Your task to perform on an android device: Clear the cart on ebay.com. Search for "apple airpods pro" on ebay.com, select the first entry, add it to the cart, then select checkout. Image 0: 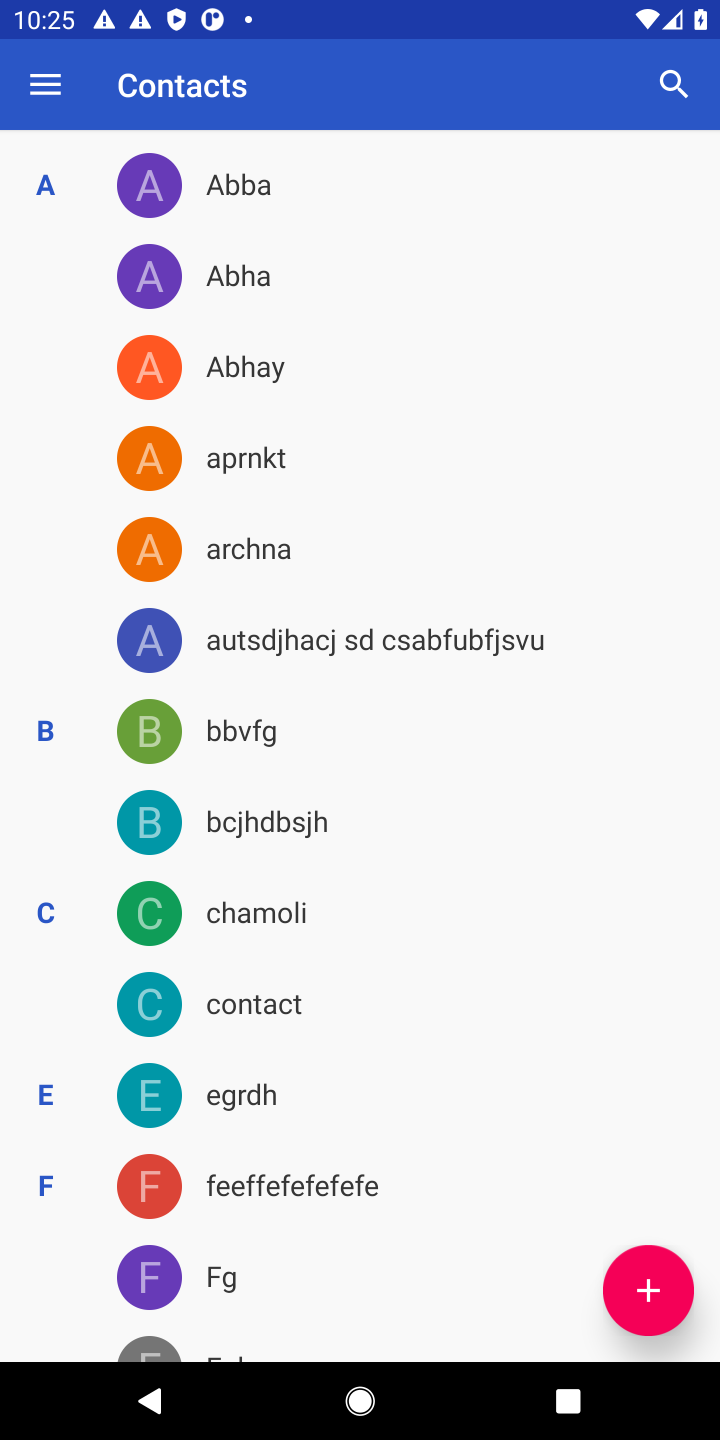
Step 0: press home button
Your task to perform on an android device: Clear the cart on ebay.com. Search for "apple airpods pro" on ebay.com, select the first entry, add it to the cart, then select checkout. Image 1: 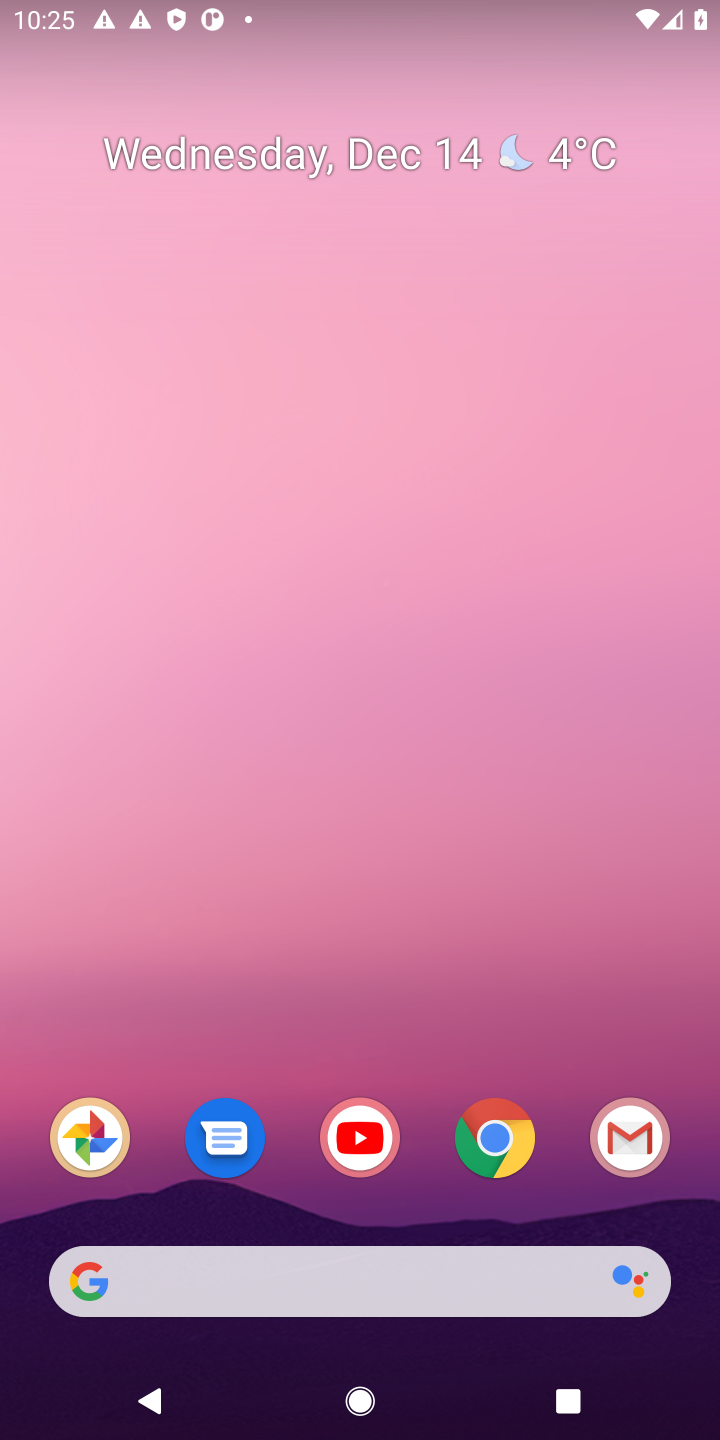
Step 1: click (506, 1152)
Your task to perform on an android device: Clear the cart on ebay.com. Search for "apple airpods pro" on ebay.com, select the first entry, add it to the cart, then select checkout. Image 2: 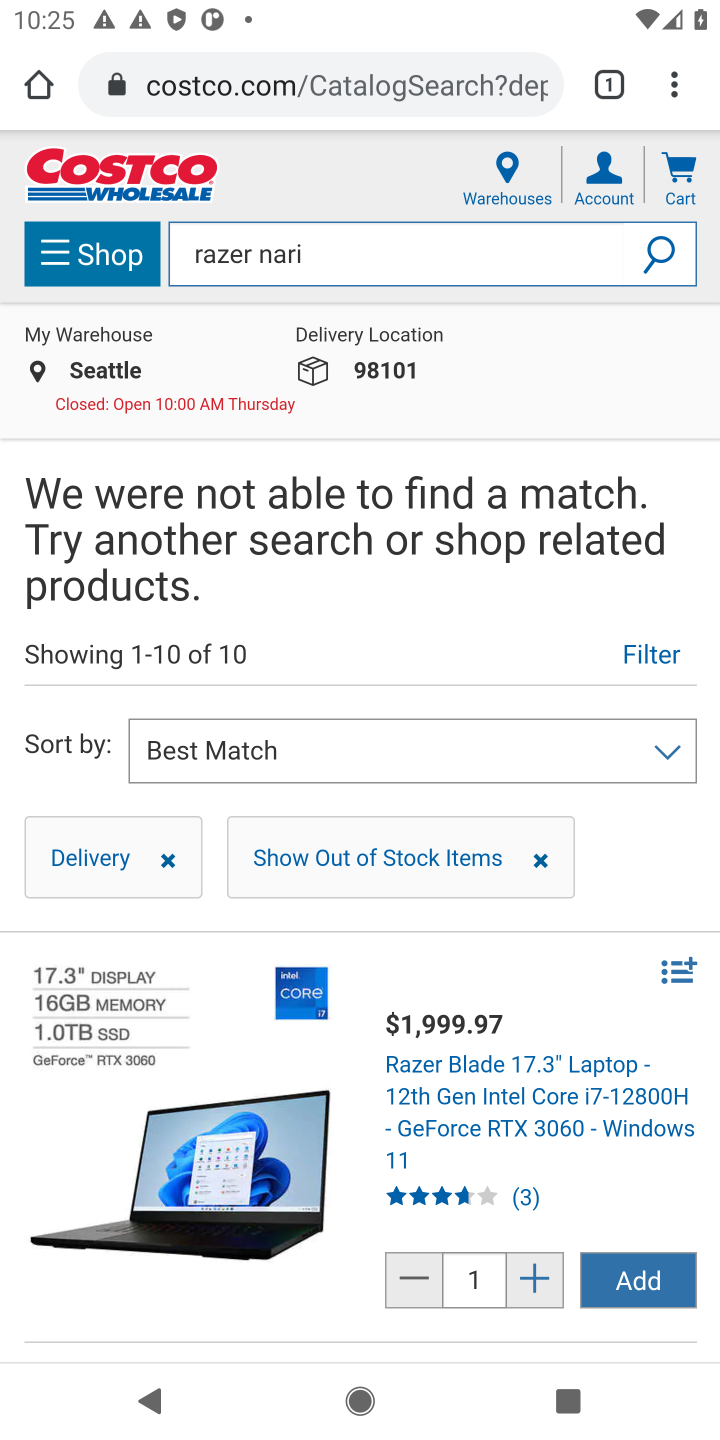
Step 2: click (303, 82)
Your task to perform on an android device: Clear the cart on ebay.com. Search for "apple airpods pro" on ebay.com, select the first entry, add it to the cart, then select checkout. Image 3: 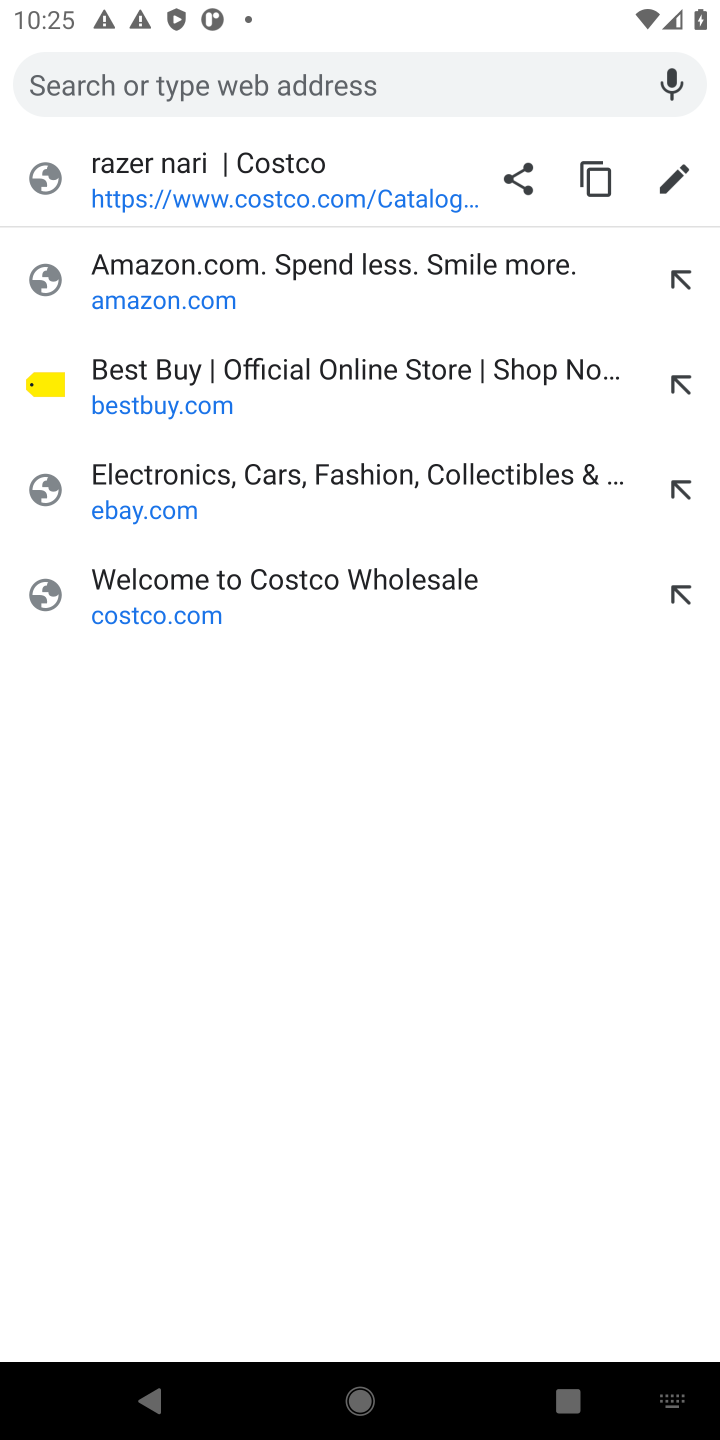
Step 3: click (157, 497)
Your task to perform on an android device: Clear the cart on ebay.com. Search for "apple airpods pro" on ebay.com, select the first entry, add it to the cart, then select checkout. Image 4: 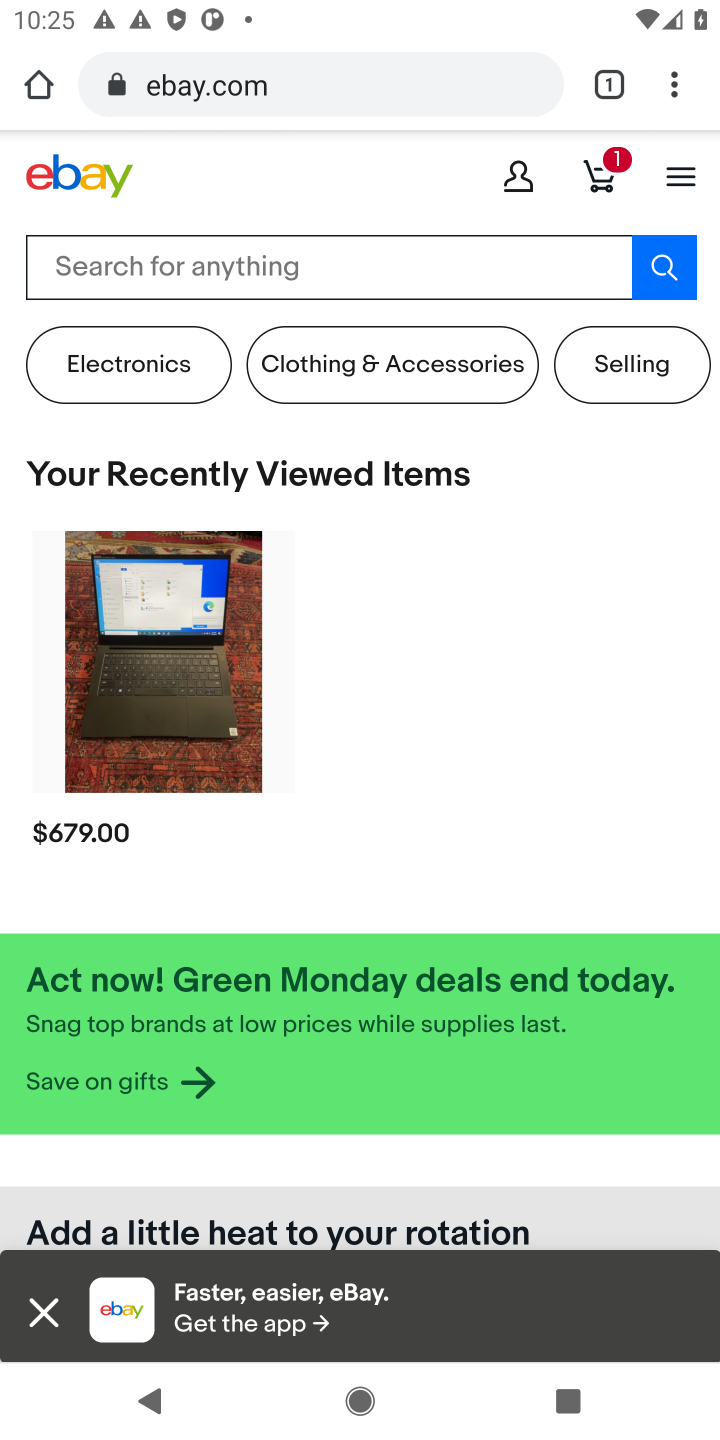
Step 4: click (603, 184)
Your task to perform on an android device: Clear the cart on ebay.com. Search for "apple airpods pro" on ebay.com, select the first entry, add it to the cart, then select checkout. Image 5: 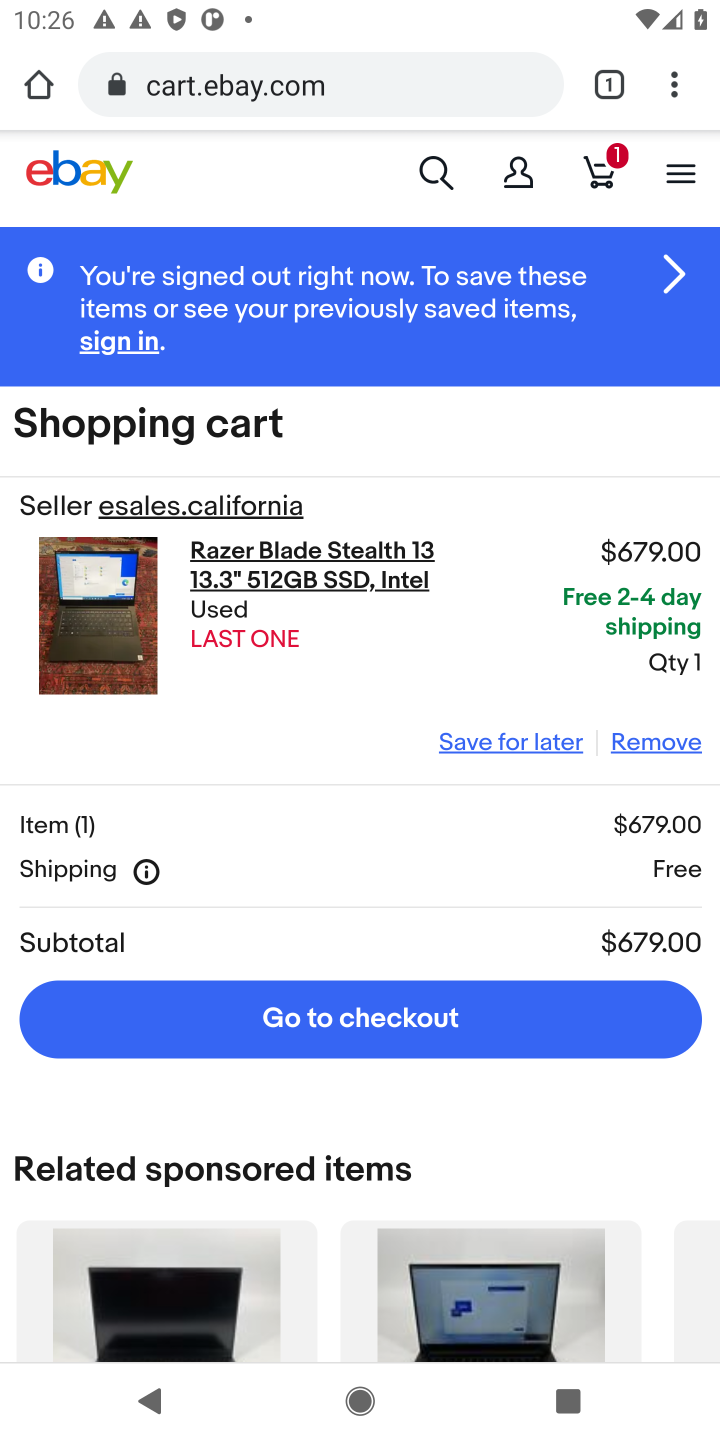
Step 5: click (649, 755)
Your task to perform on an android device: Clear the cart on ebay.com. Search for "apple airpods pro" on ebay.com, select the first entry, add it to the cart, then select checkout. Image 6: 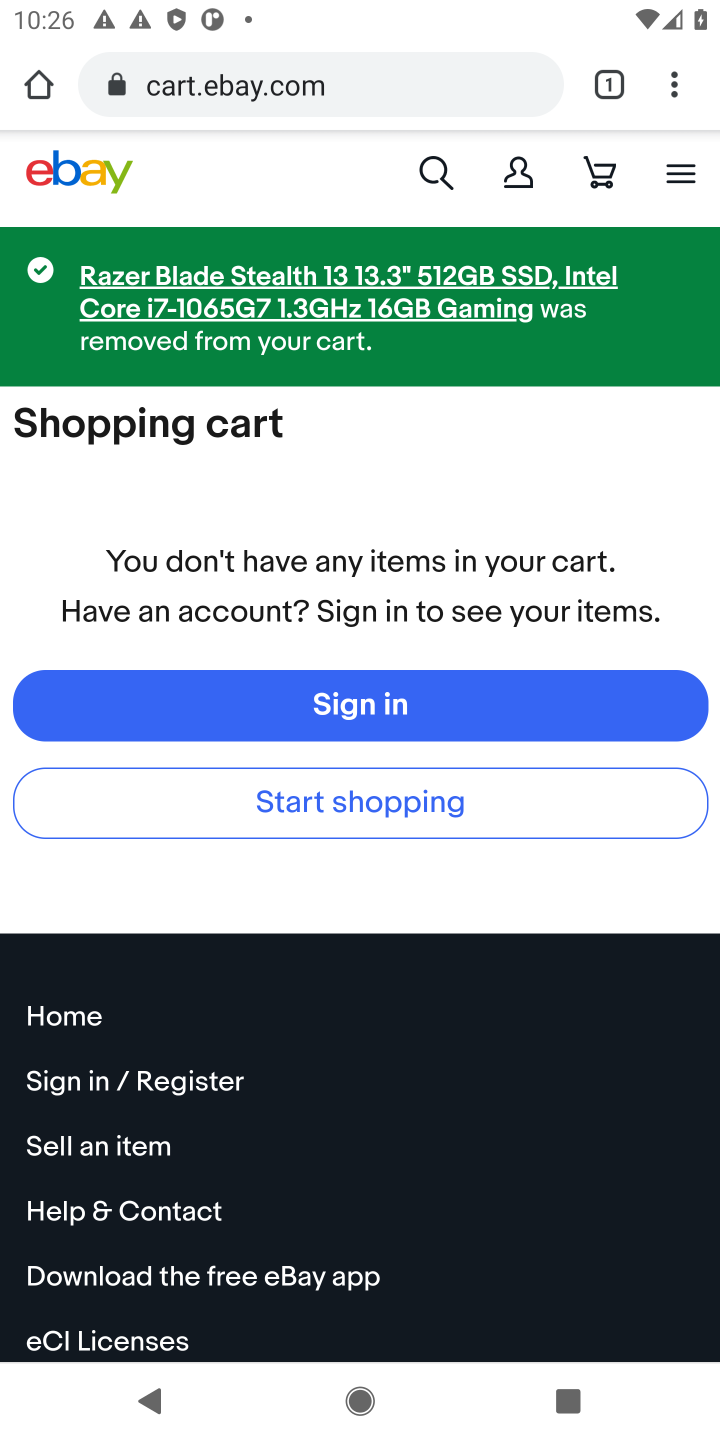
Step 6: click (423, 175)
Your task to perform on an android device: Clear the cart on ebay.com. Search for "apple airpods pro" on ebay.com, select the first entry, add it to the cart, then select checkout. Image 7: 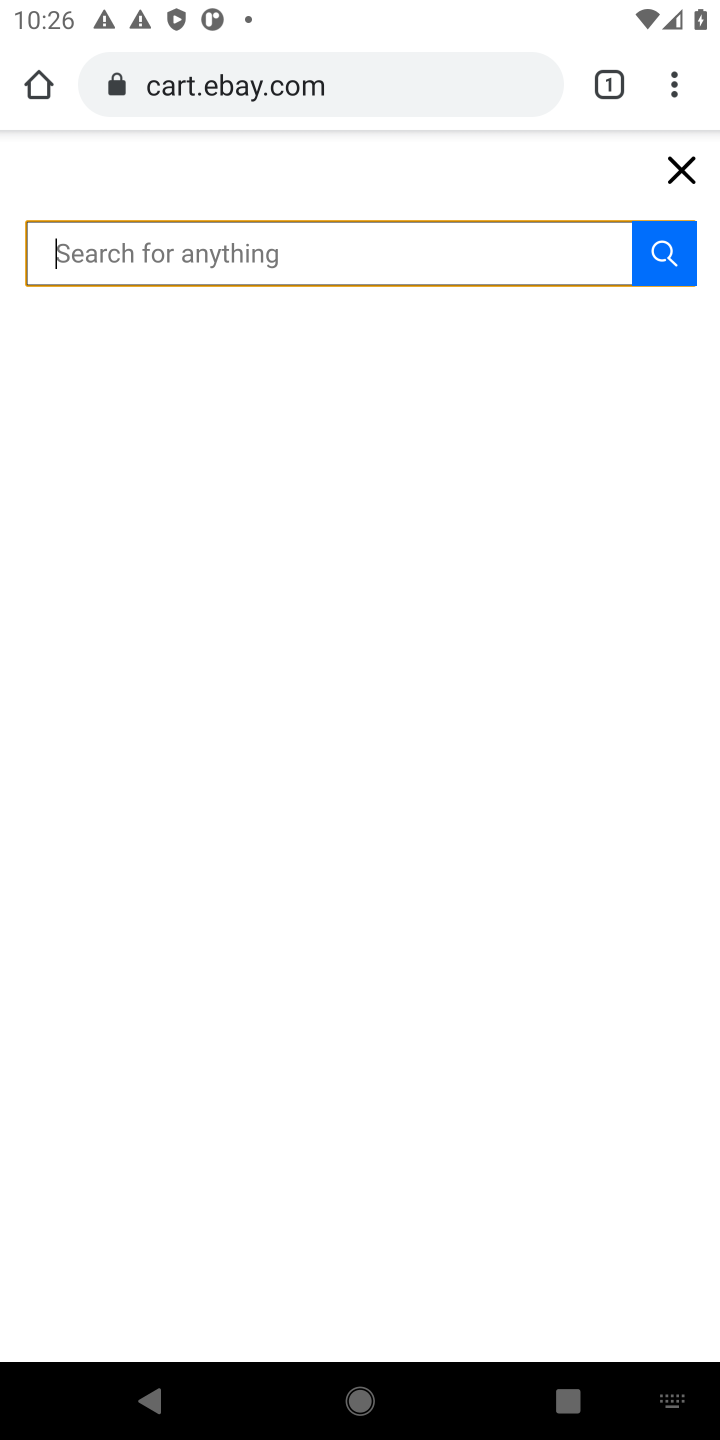
Step 7: type "apple airpods pro"
Your task to perform on an android device: Clear the cart on ebay.com. Search for "apple airpods pro" on ebay.com, select the first entry, add it to the cart, then select checkout. Image 8: 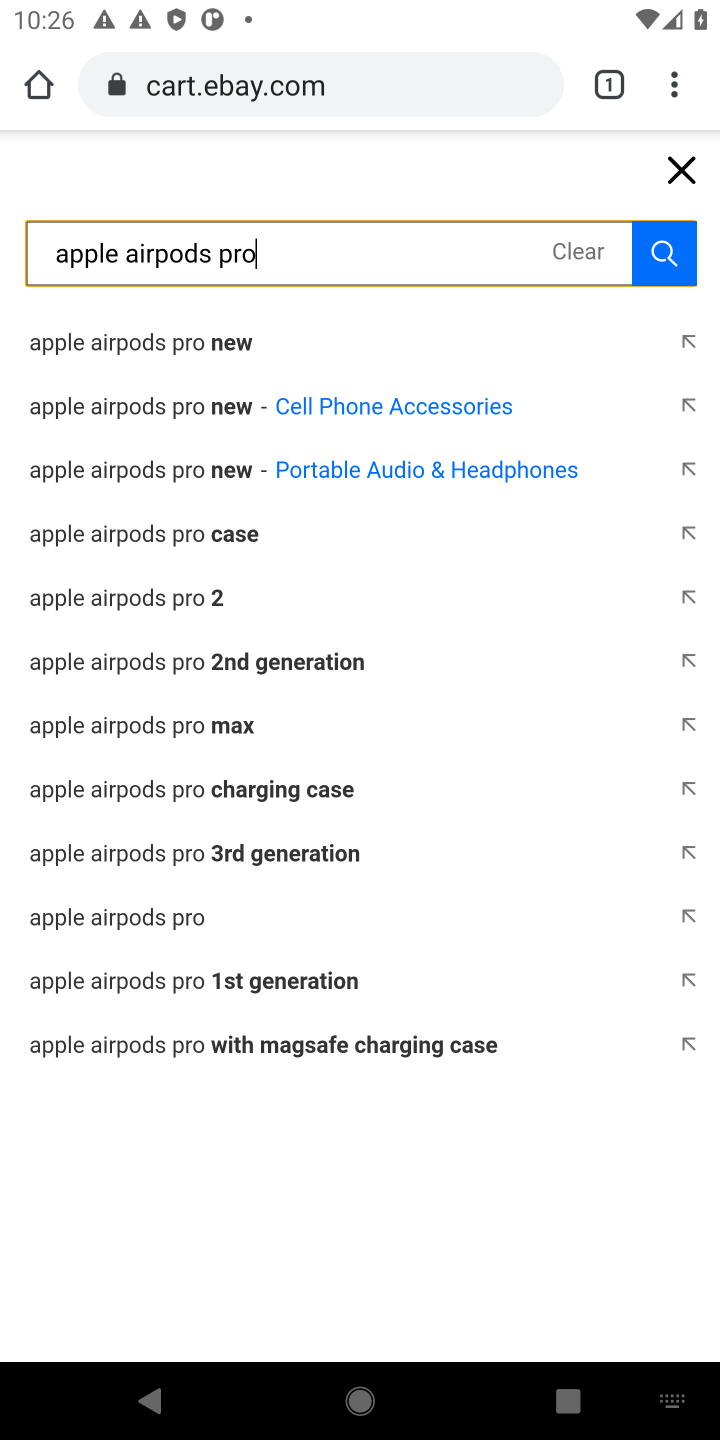
Step 8: click (662, 266)
Your task to perform on an android device: Clear the cart on ebay.com. Search for "apple airpods pro" on ebay.com, select the first entry, add it to the cart, then select checkout. Image 9: 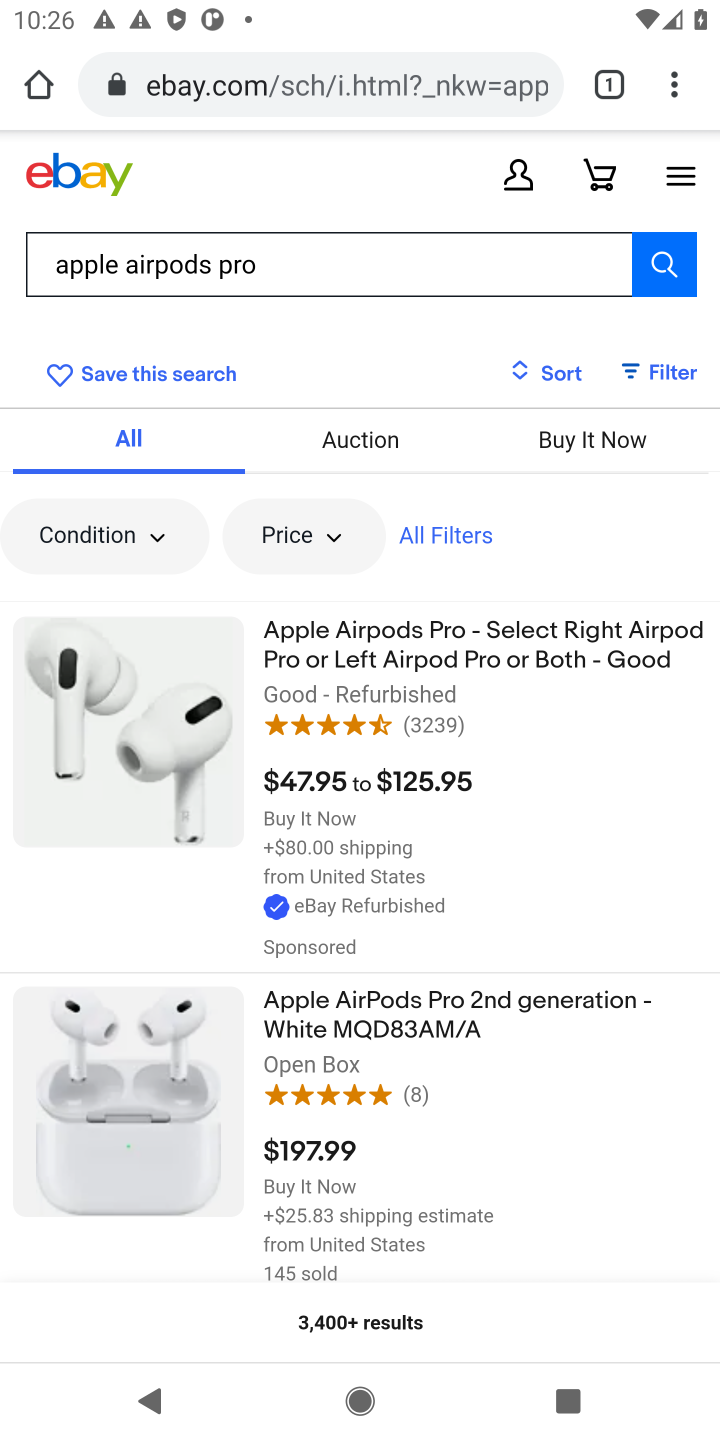
Step 9: click (361, 661)
Your task to perform on an android device: Clear the cart on ebay.com. Search for "apple airpods pro" on ebay.com, select the first entry, add it to the cart, then select checkout. Image 10: 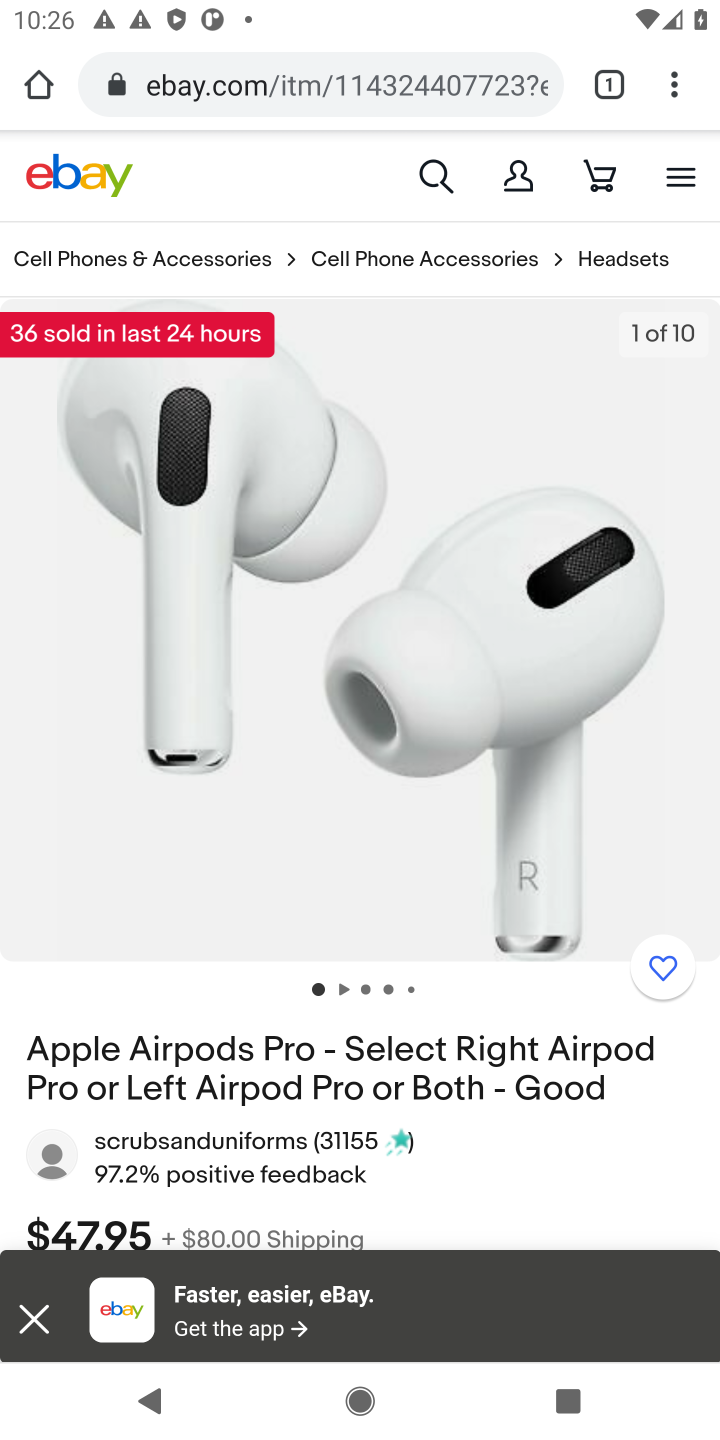
Step 10: drag from (262, 1056) to (256, 446)
Your task to perform on an android device: Clear the cart on ebay.com. Search for "apple airpods pro" on ebay.com, select the first entry, add it to the cart, then select checkout. Image 11: 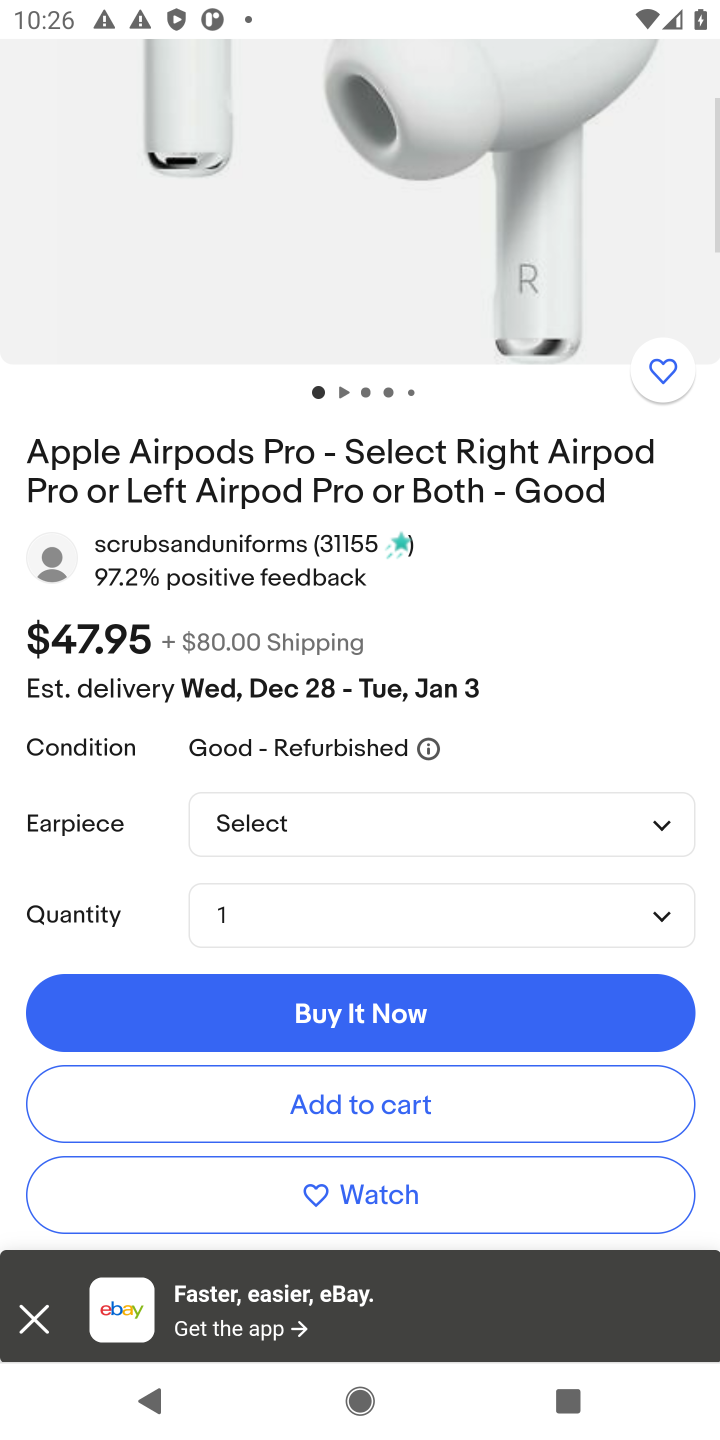
Step 11: drag from (401, 1024) to (345, 658)
Your task to perform on an android device: Clear the cart on ebay.com. Search for "apple airpods pro" on ebay.com, select the first entry, add it to the cart, then select checkout. Image 12: 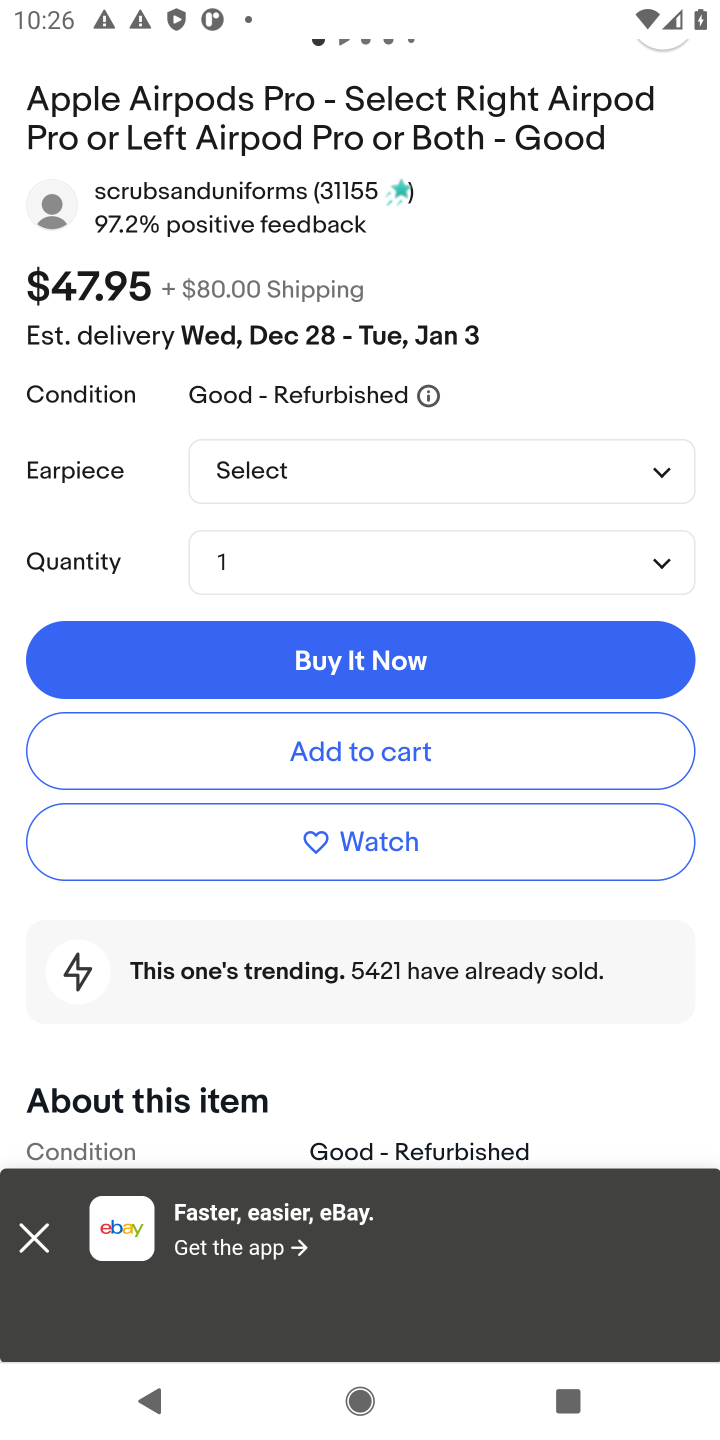
Step 12: click (343, 763)
Your task to perform on an android device: Clear the cart on ebay.com. Search for "apple airpods pro" on ebay.com, select the first entry, add it to the cart, then select checkout. Image 13: 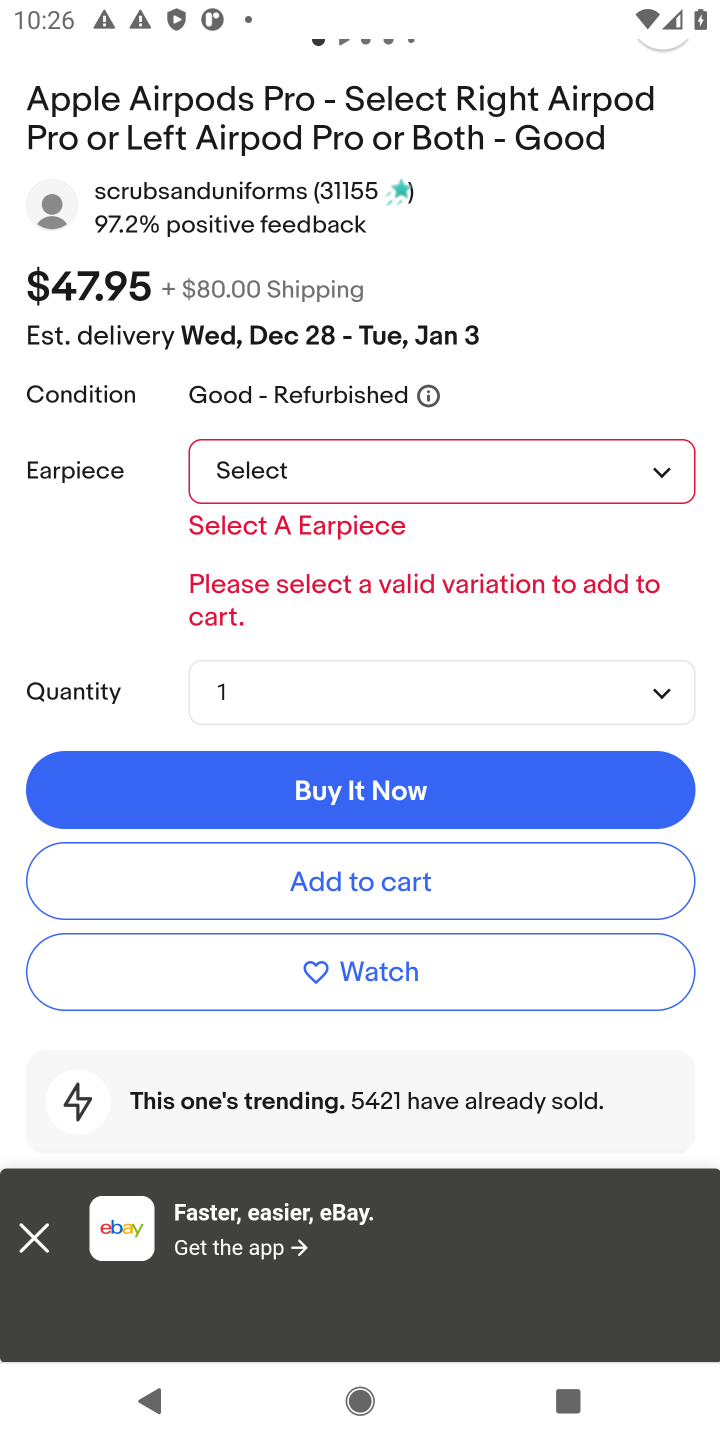
Step 13: click (673, 482)
Your task to perform on an android device: Clear the cart on ebay.com. Search for "apple airpods pro" on ebay.com, select the first entry, add it to the cart, then select checkout. Image 14: 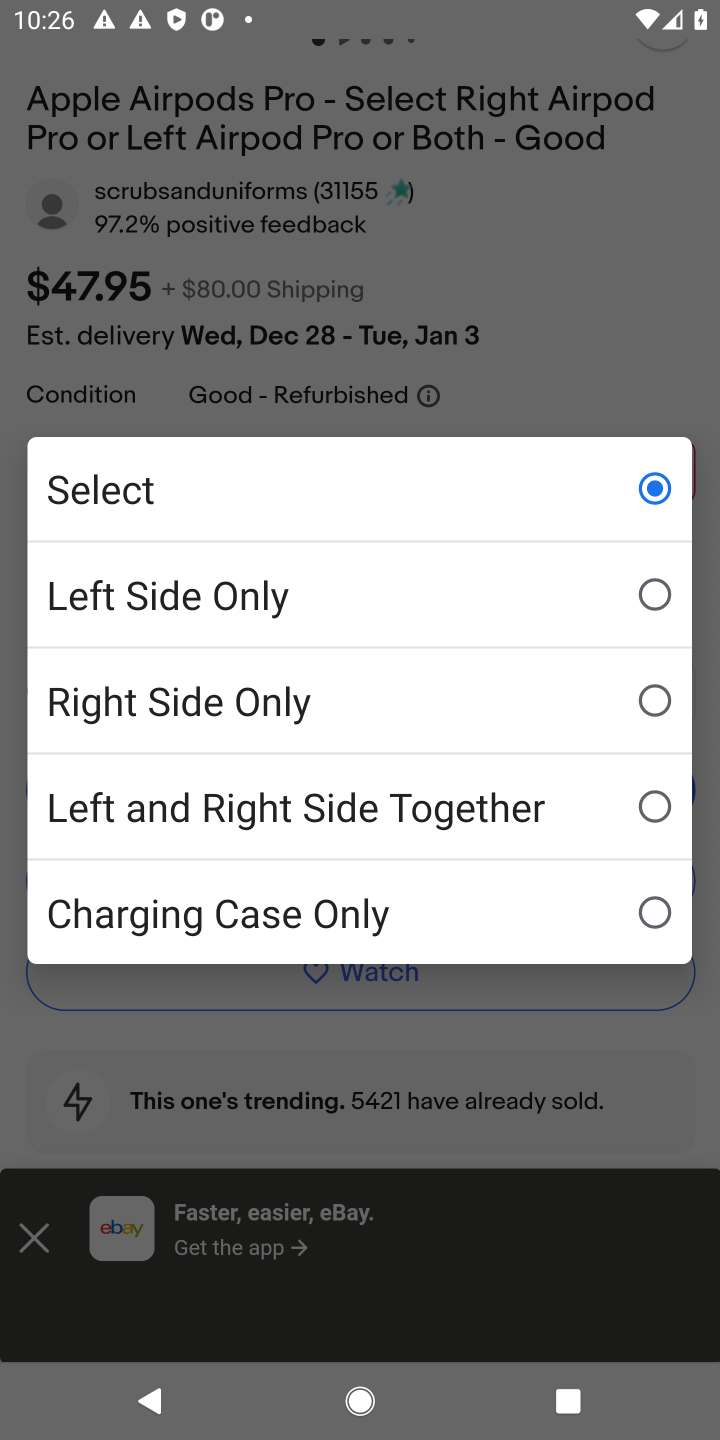
Step 14: click (196, 593)
Your task to perform on an android device: Clear the cart on ebay.com. Search for "apple airpods pro" on ebay.com, select the first entry, add it to the cart, then select checkout. Image 15: 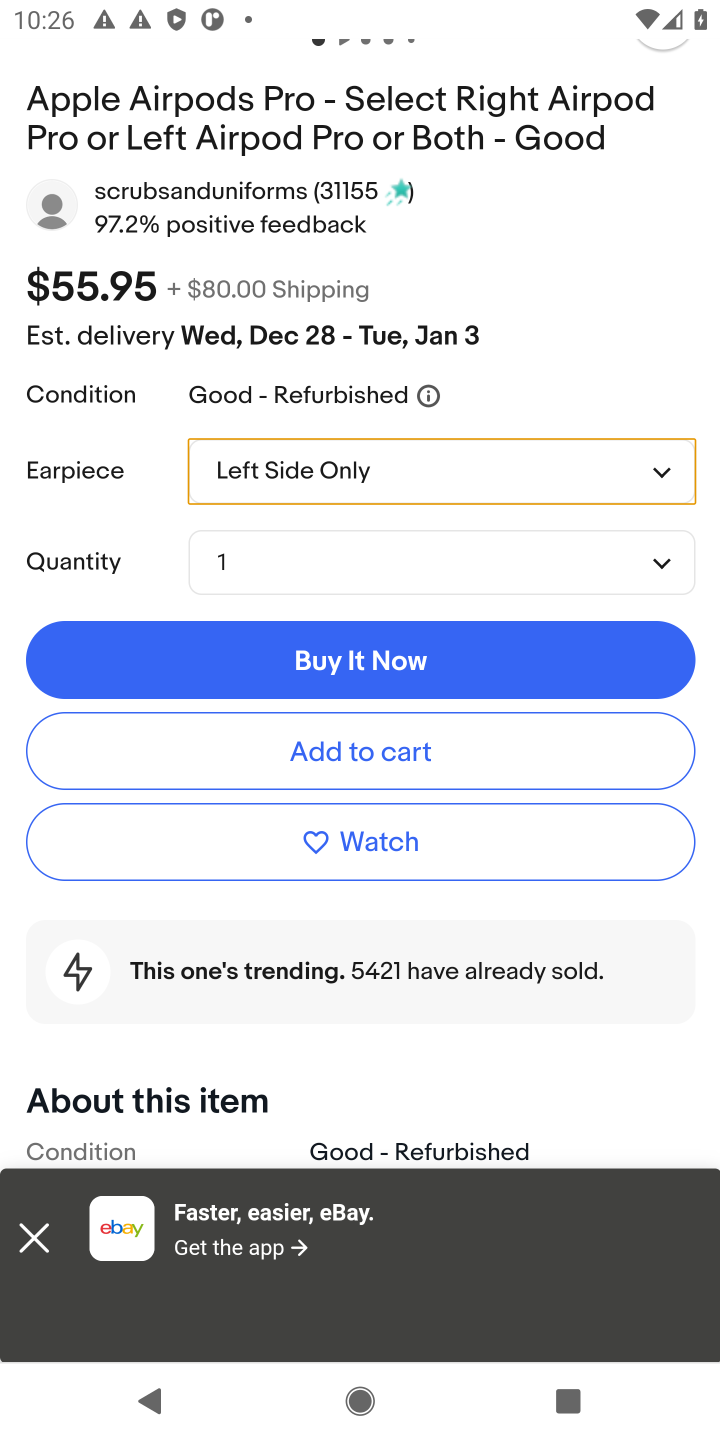
Step 15: click (294, 732)
Your task to perform on an android device: Clear the cart on ebay.com. Search for "apple airpods pro" on ebay.com, select the first entry, add it to the cart, then select checkout. Image 16: 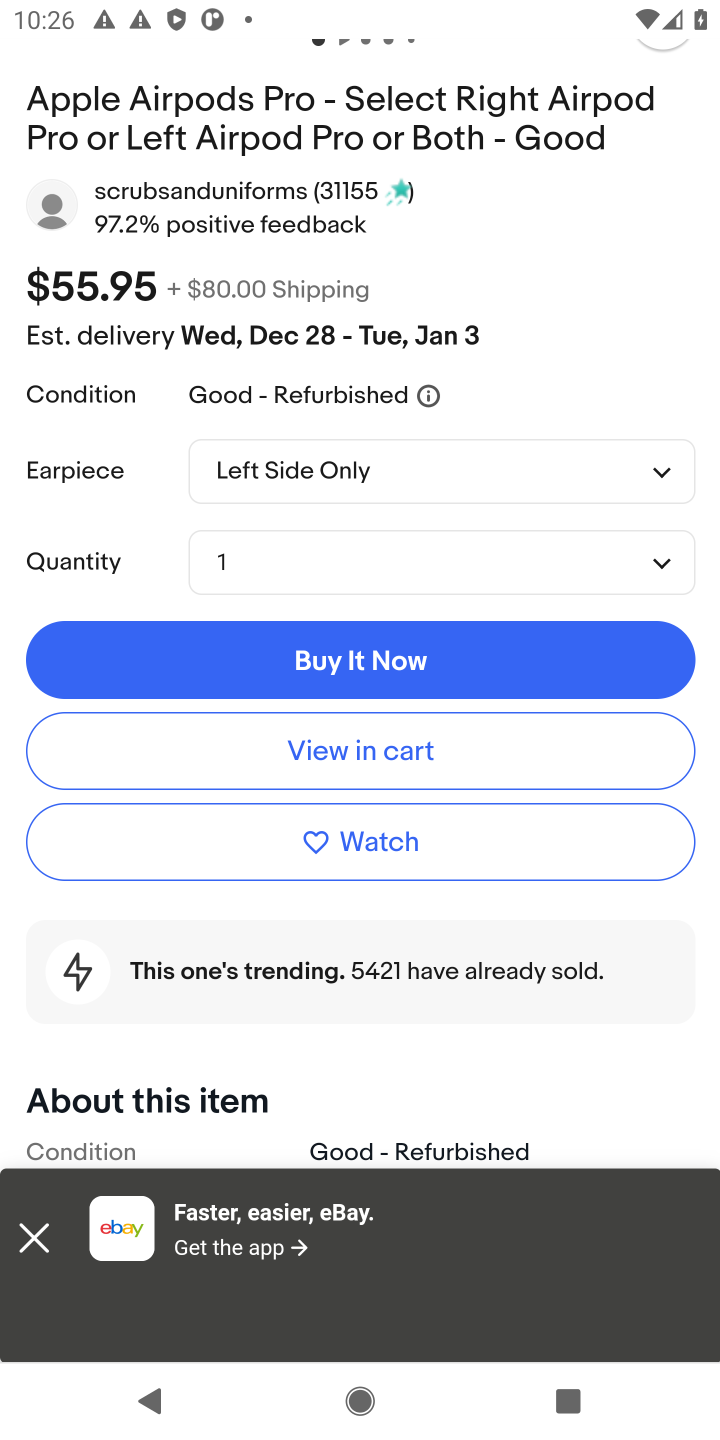
Step 16: click (301, 741)
Your task to perform on an android device: Clear the cart on ebay.com. Search for "apple airpods pro" on ebay.com, select the first entry, add it to the cart, then select checkout. Image 17: 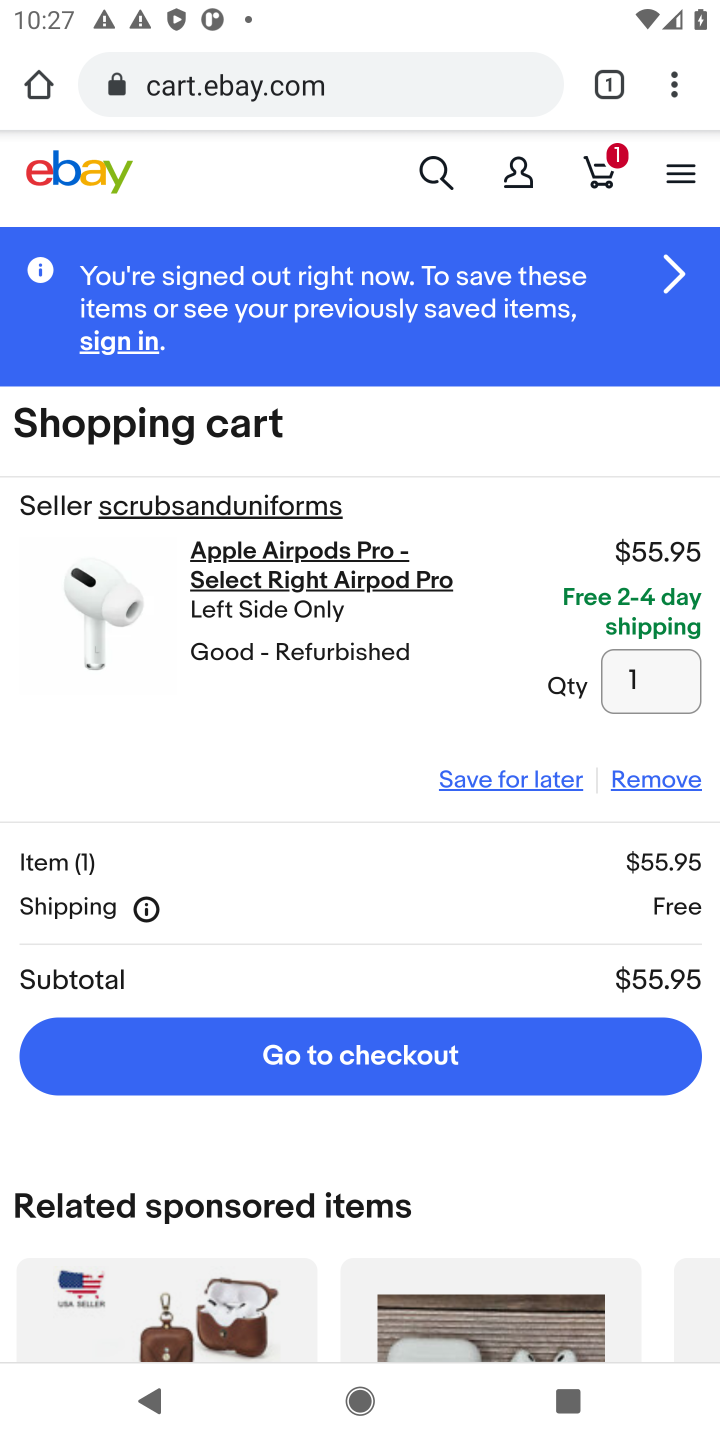
Step 17: click (368, 1062)
Your task to perform on an android device: Clear the cart on ebay.com. Search for "apple airpods pro" on ebay.com, select the first entry, add it to the cart, then select checkout. Image 18: 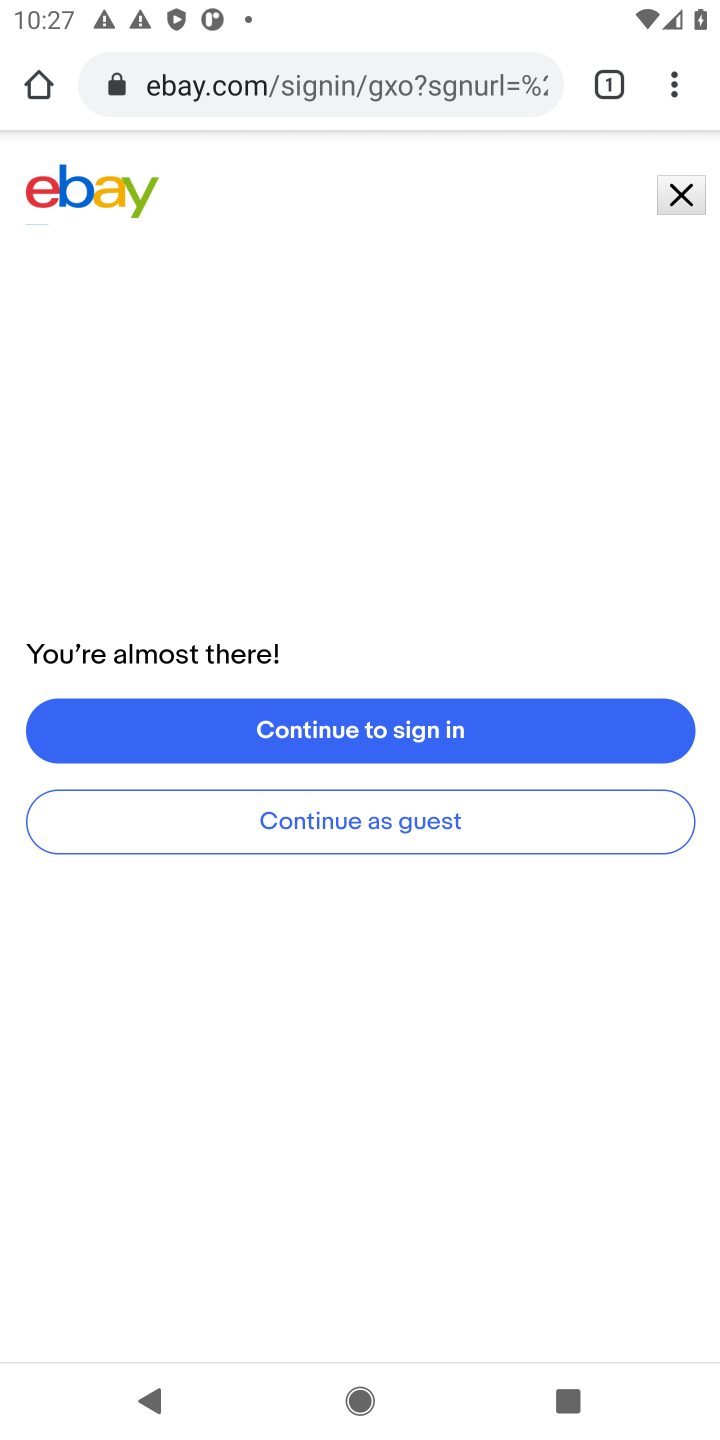
Step 18: task complete